Your task to perform on an android device: Open settings on Google Maps Image 0: 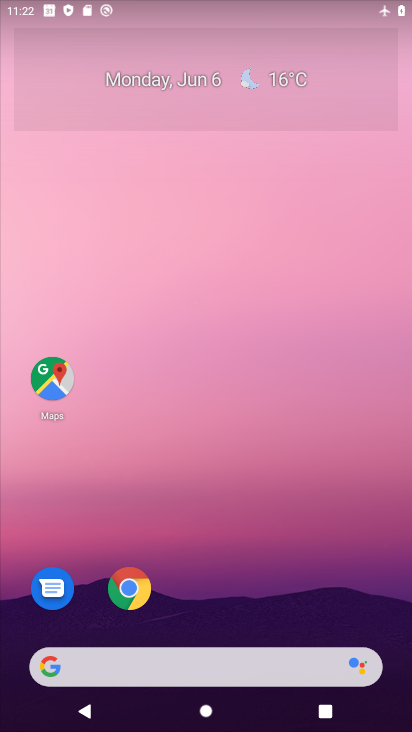
Step 0: drag from (277, 610) to (287, 517)
Your task to perform on an android device: Open settings on Google Maps Image 1: 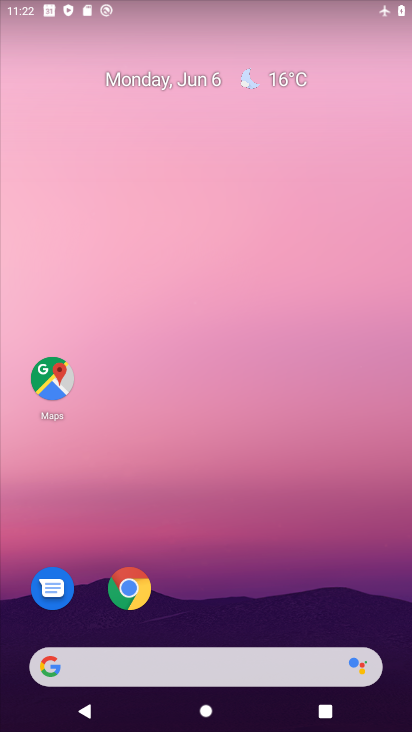
Step 1: click (55, 381)
Your task to perform on an android device: Open settings on Google Maps Image 2: 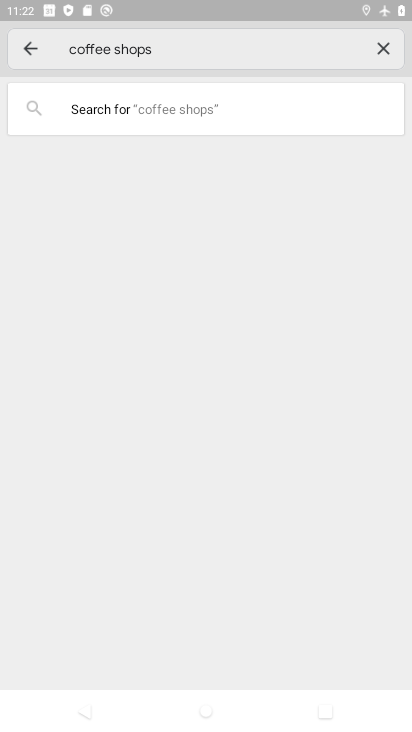
Step 2: click (383, 52)
Your task to perform on an android device: Open settings on Google Maps Image 3: 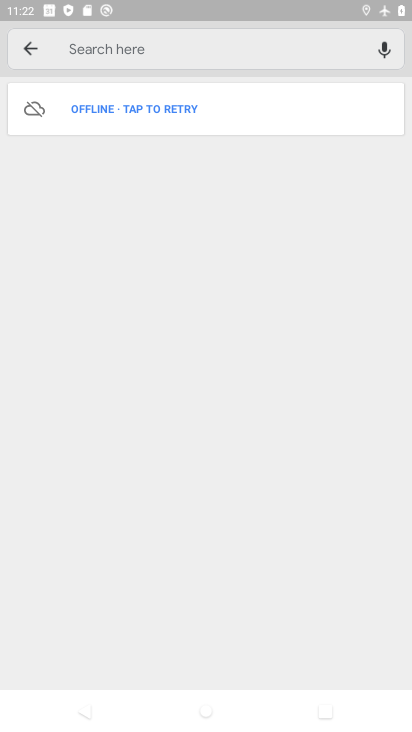
Step 3: click (31, 51)
Your task to perform on an android device: Open settings on Google Maps Image 4: 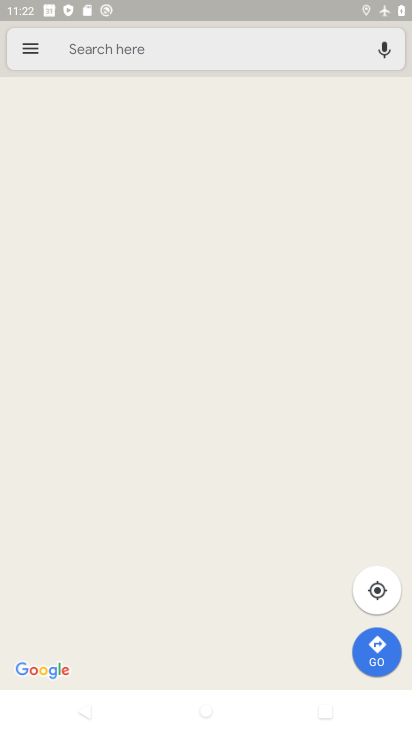
Step 4: click (31, 51)
Your task to perform on an android device: Open settings on Google Maps Image 5: 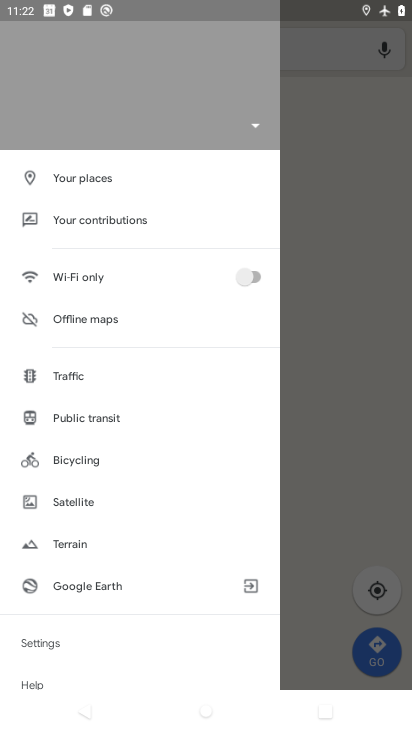
Step 5: drag from (99, 389) to (97, 164)
Your task to perform on an android device: Open settings on Google Maps Image 6: 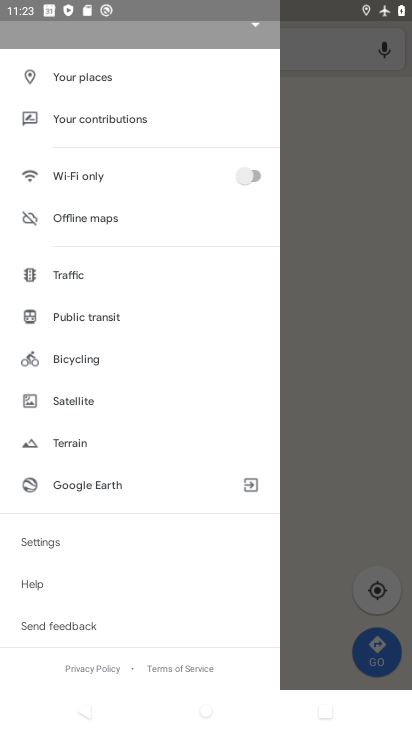
Step 6: click (51, 538)
Your task to perform on an android device: Open settings on Google Maps Image 7: 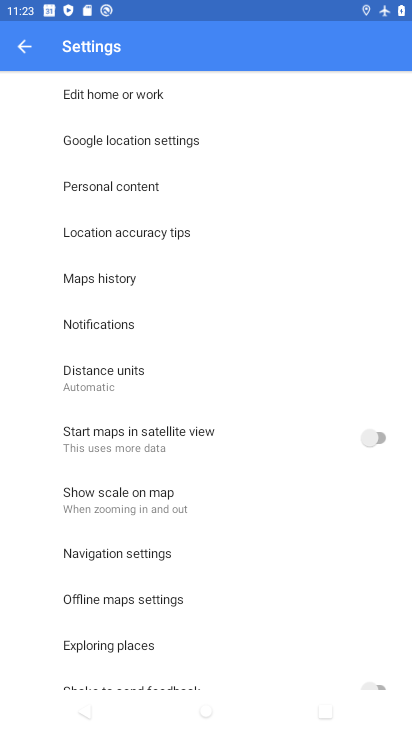
Step 7: task complete